Your task to perform on an android device: Open calendar and show me the first week of next month Image 0: 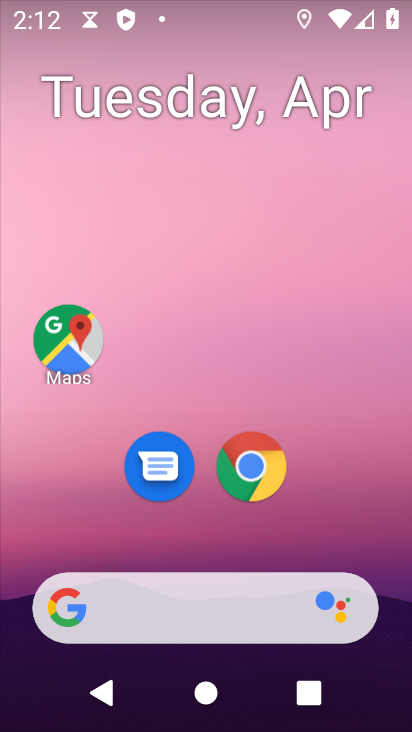
Step 0: drag from (332, 510) to (274, 16)
Your task to perform on an android device: Open calendar and show me the first week of next month Image 1: 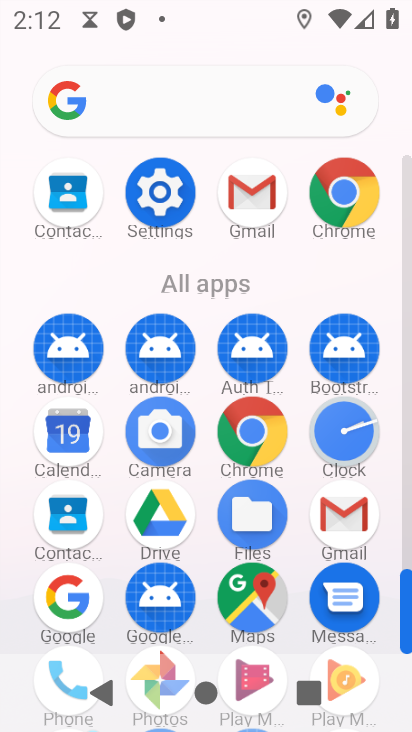
Step 1: click (65, 430)
Your task to perform on an android device: Open calendar and show me the first week of next month Image 2: 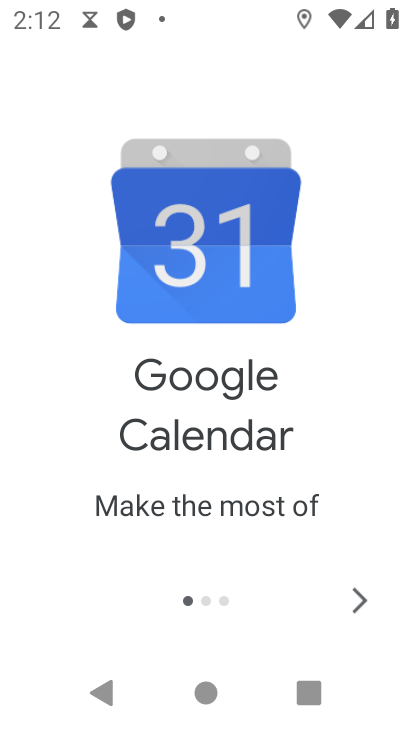
Step 2: click (340, 597)
Your task to perform on an android device: Open calendar and show me the first week of next month Image 3: 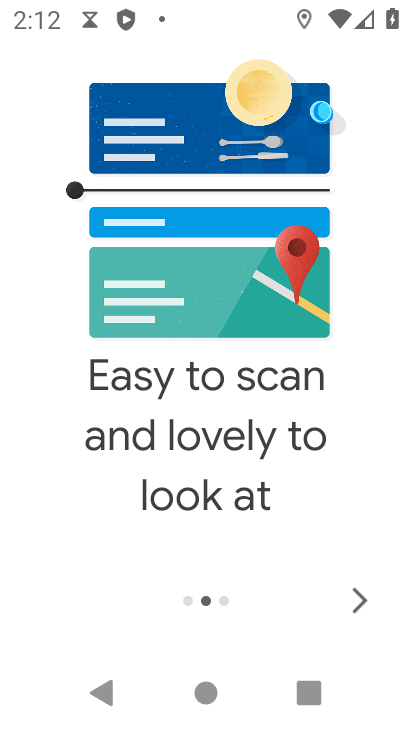
Step 3: click (345, 599)
Your task to perform on an android device: Open calendar and show me the first week of next month Image 4: 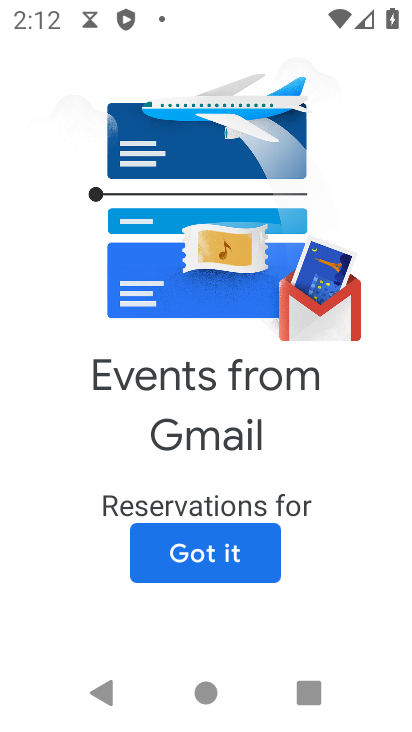
Step 4: click (278, 545)
Your task to perform on an android device: Open calendar and show me the first week of next month Image 5: 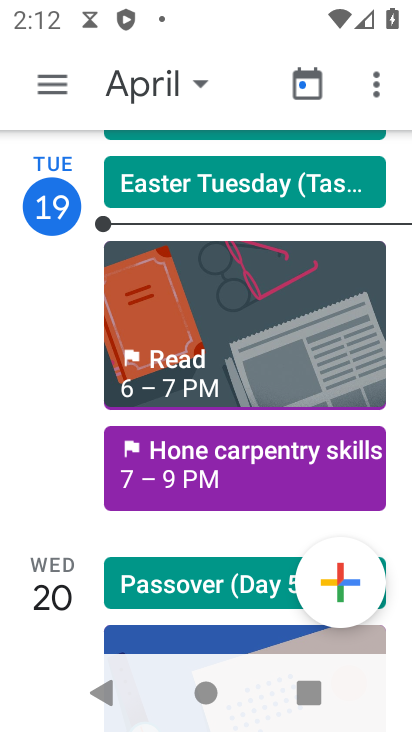
Step 5: click (55, 75)
Your task to perform on an android device: Open calendar and show me the first week of next month Image 6: 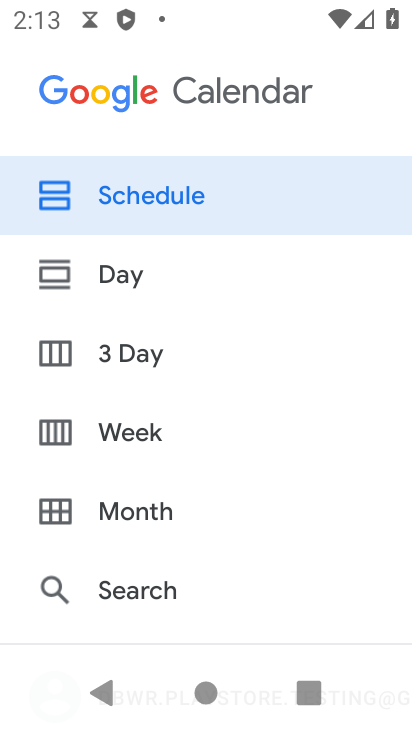
Step 6: drag from (184, 561) to (189, 239)
Your task to perform on an android device: Open calendar and show me the first week of next month Image 7: 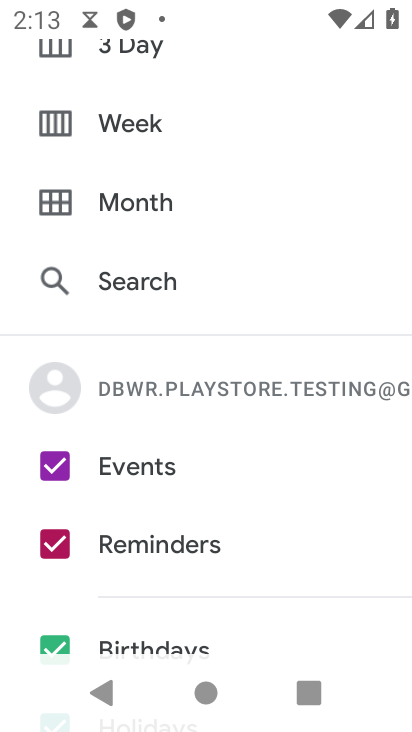
Step 7: drag from (238, 515) to (229, 151)
Your task to perform on an android device: Open calendar and show me the first week of next month Image 8: 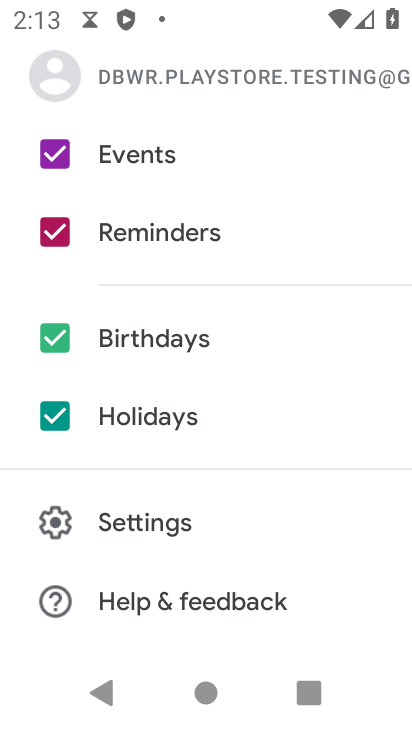
Step 8: drag from (242, 296) to (245, 198)
Your task to perform on an android device: Open calendar and show me the first week of next month Image 9: 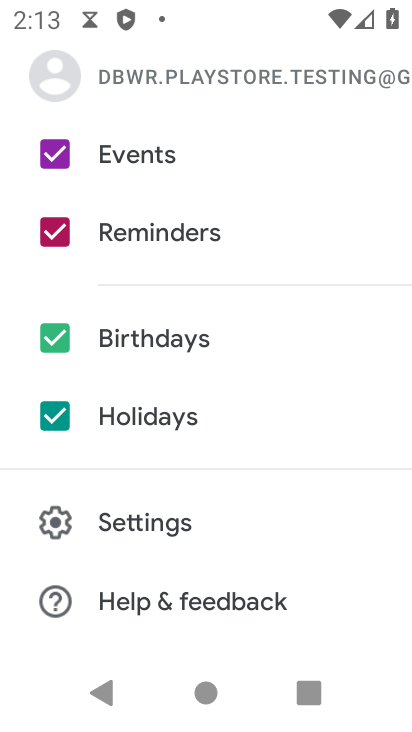
Step 9: drag from (223, 313) to (223, 162)
Your task to perform on an android device: Open calendar and show me the first week of next month Image 10: 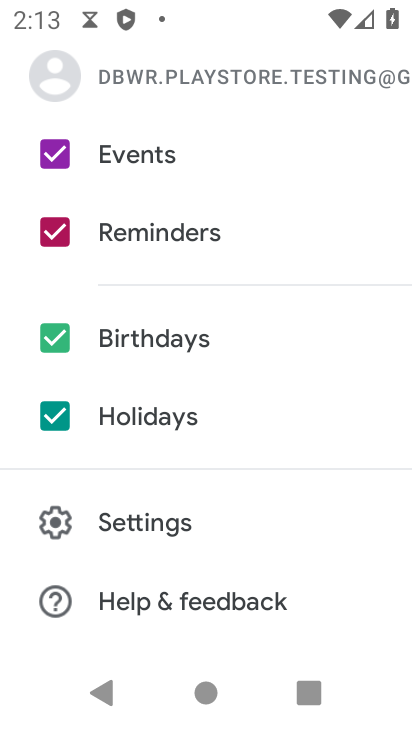
Step 10: drag from (223, 167) to (215, 637)
Your task to perform on an android device: Open calendar and show me the first week of next month Image 11: 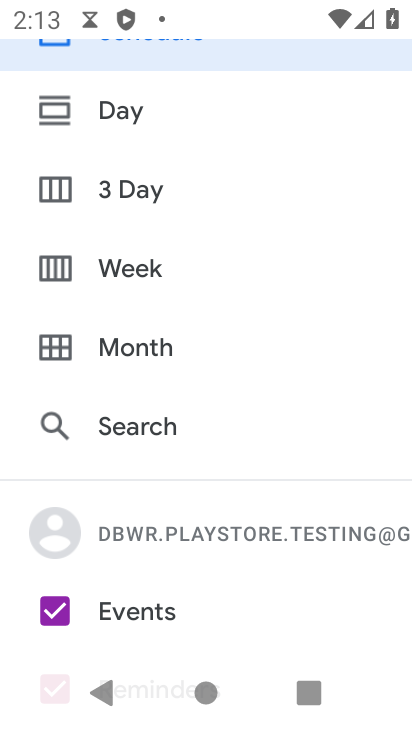
Step 11: drag from (261, 310) to (264, 574)
Your task to perform on an android device: Open calendar and show me the first week of next month Image 12: 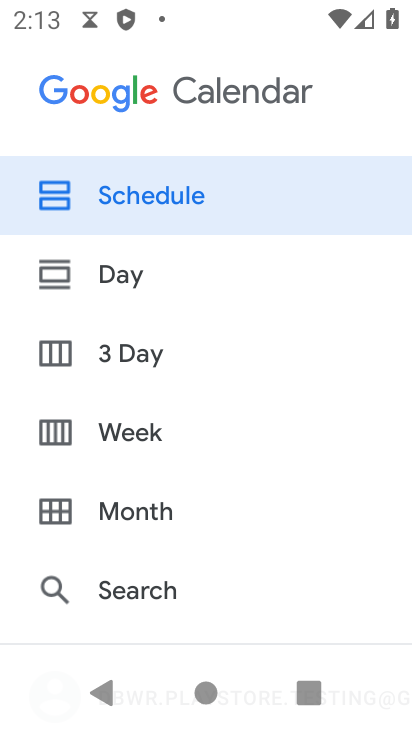
Step 12: click (114, 512)
Your task to perform on an android device: Open calendar and show me the first week of next month Image 13: 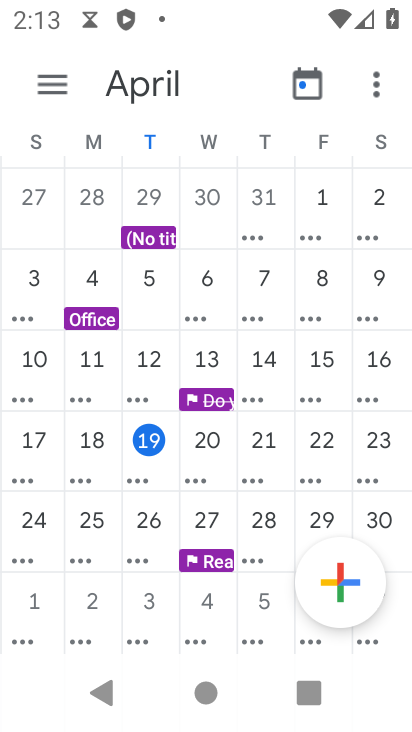
Step 13: drag from (359, 390) to (18, 280)
Your task to perform on an android device: Open calendar and show me the first week of next month Image 14: 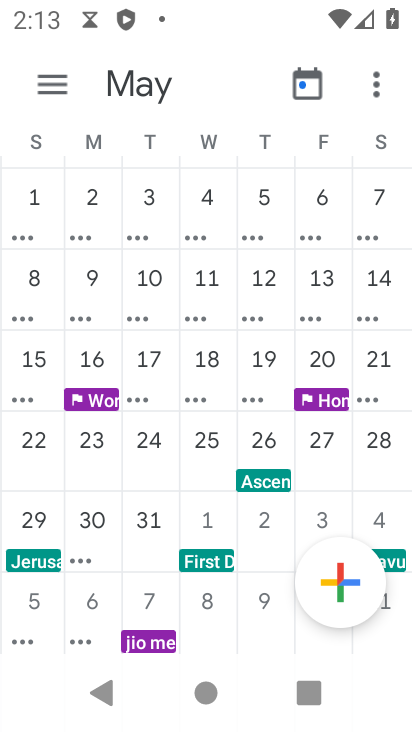
Step 14: click (84, 201)
Your task to perform on an android device: Open calendar and show me the first week of next month Image 15: 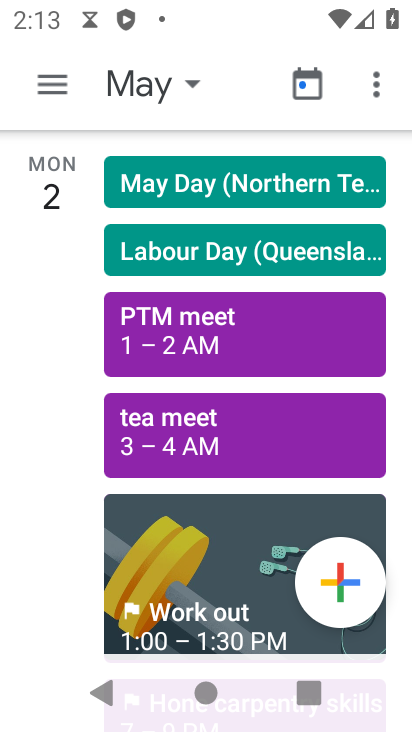
Step 15: click (60, 87)
Your task to perform on an android device: Open calendar and show me the first week of next month Image 16: 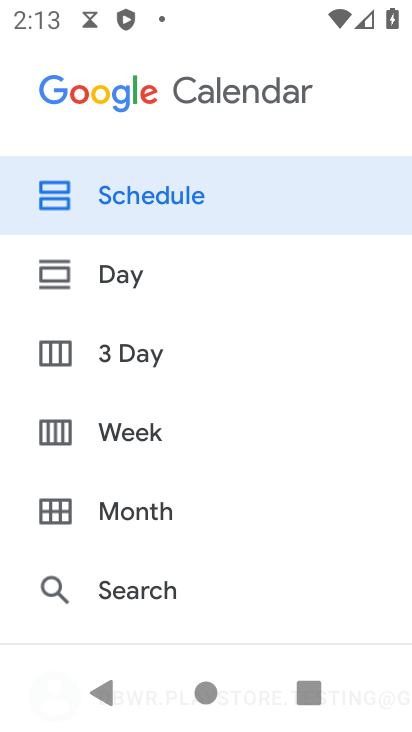
Step 16: click (133, 443)
Your task to perform on an android device: Open calendar and show me the first week of next month Image 17: 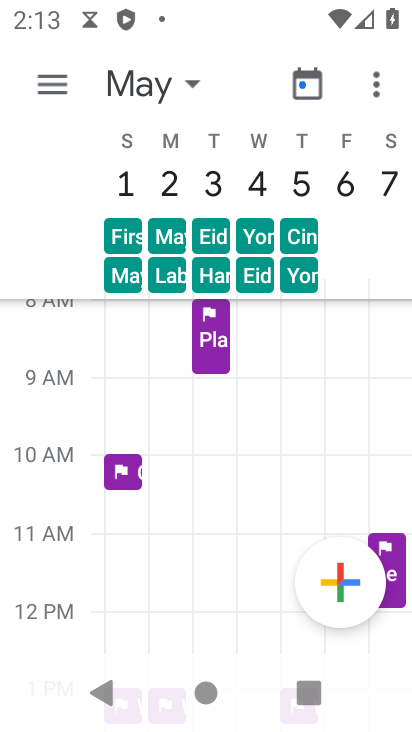
Step 17: task complete